Your task to perform on an android device: show emergency info Image 0: 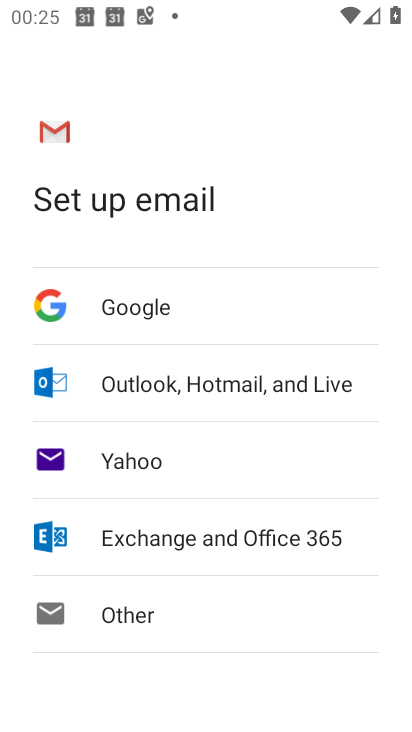
Step 0: press home button
Your task to perform on an android device: show emergency info Image 1: 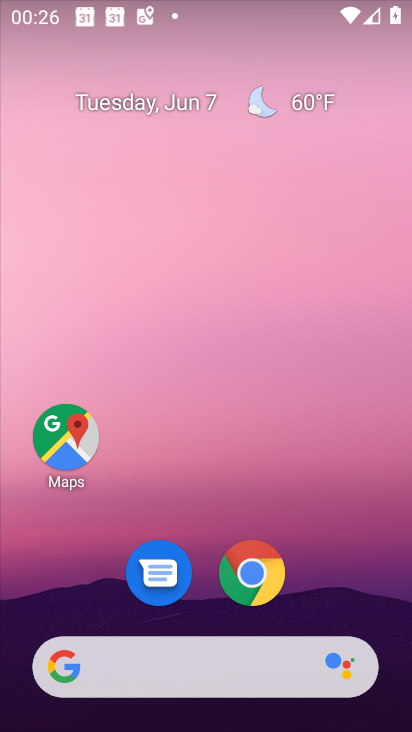
Step 1: drag from (342, 573) to (132, 640)
Your task to perform on an android device: show emergency info Image 2: 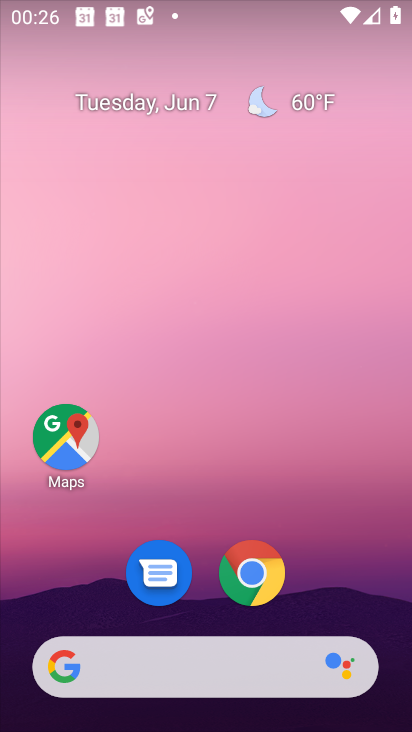
Step 2: drag from (355, 616) to (336, 97)
Your task to perform on an android device: show emergency info Image 3: 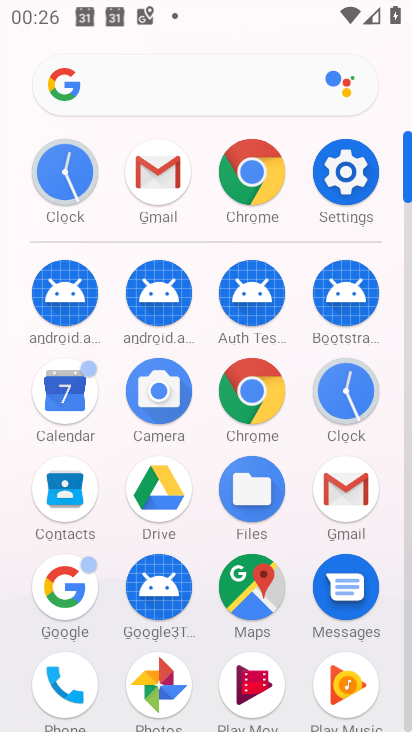
Step 3: click (352, 173)
Your task to perform on an android device: show emergency info Image 4: 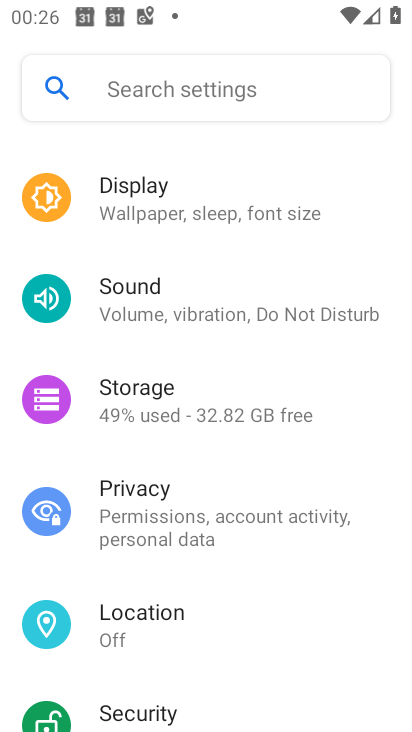
Step 4: drag from (222, 603) to (366, 135)
Your task to perform on an android device: show emergency info Image 5: 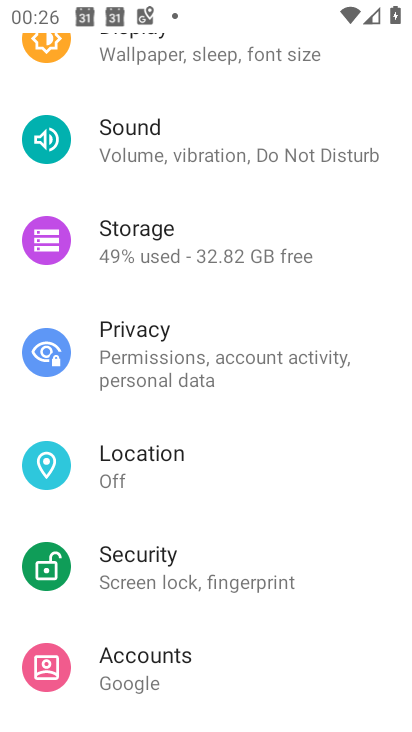
Step 5: click (365, 292)
Your task to perform on an android device: show emergency info Image 6: 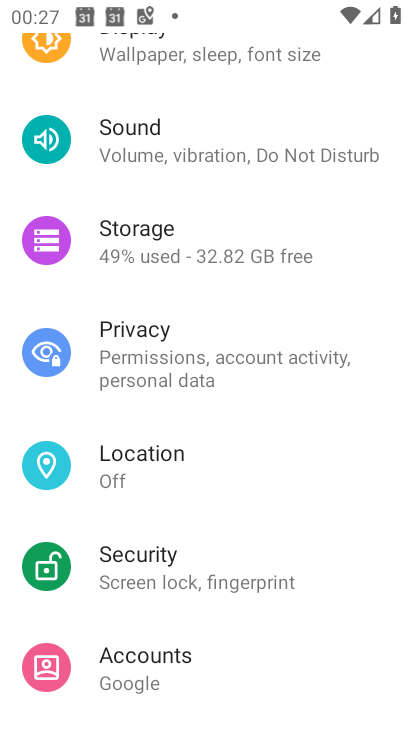
Step 6: drag from (261, 226) to (290, 7)
Your task to perform on an android device: show emergency info Image 7: 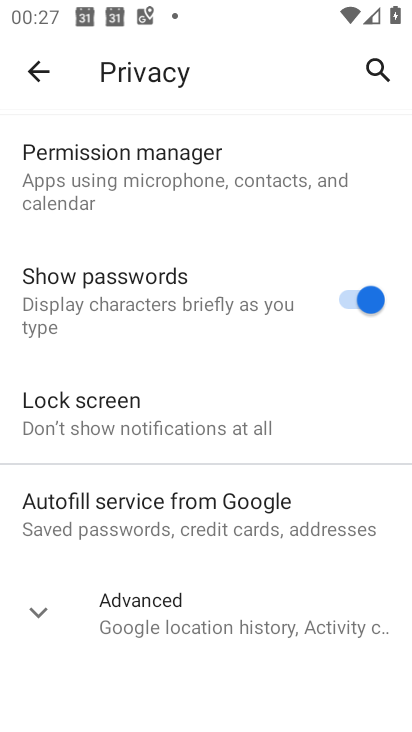
Step 7: click (23, 93)
Your task to perform on an android device: show emergency info Image 8: 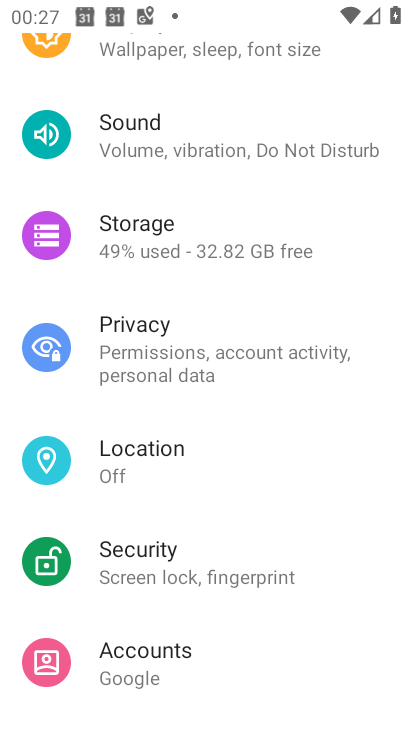
Step 8: drag from (280, 579) to (284, 88)
Your task to perform on an android device: show emergency info Image 9: 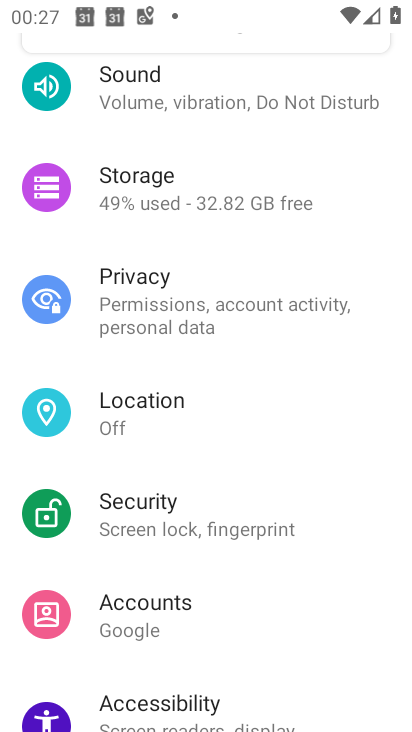
Step 9: drag from (252, 166) to (251, 49)
Your task to perform on an android device: show emergency info Image 10: 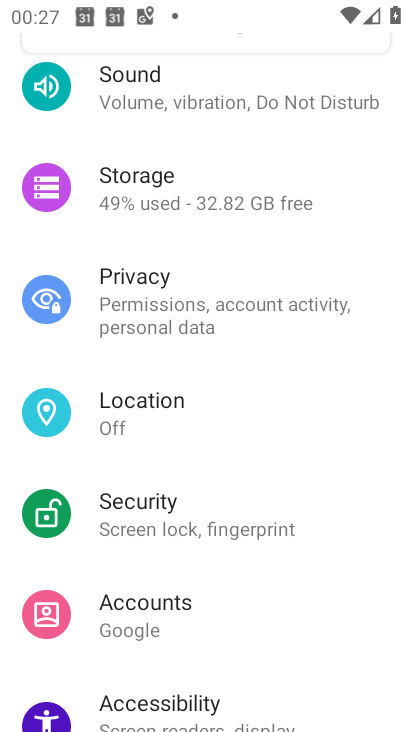
Step 10: drag from (240, 186) to (234, 73)
Your task to perform on an android device: show emergency info Image 11: 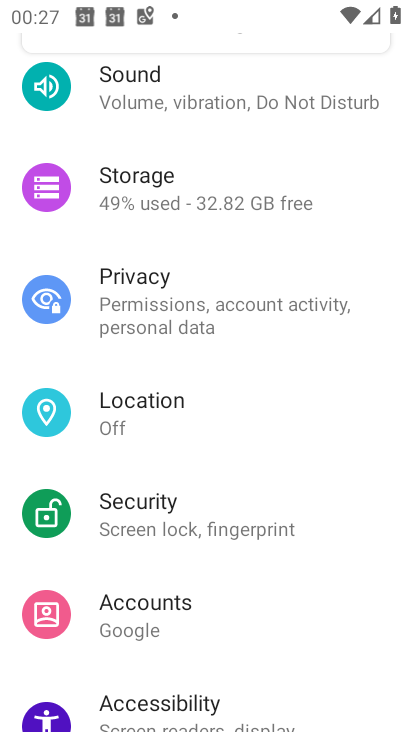
Step 11: drag from (276, 464) to (245, 123)
Your task to perform on an android device: show emergency info Image 12: 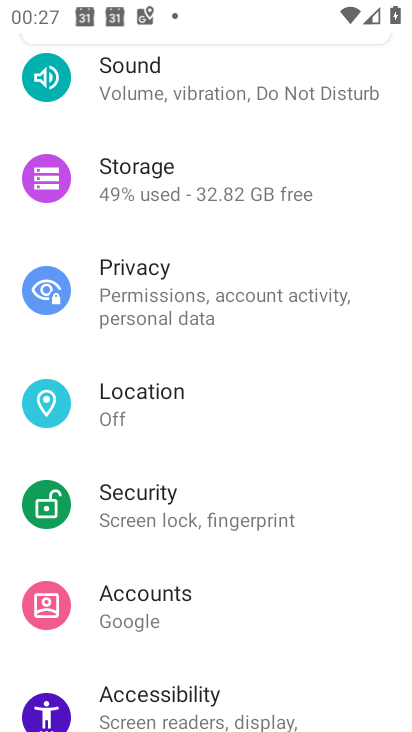
Step 12: drag from (289, 567) to (251, 306)
Your task to perform on an android device: show emergency info Image 13: 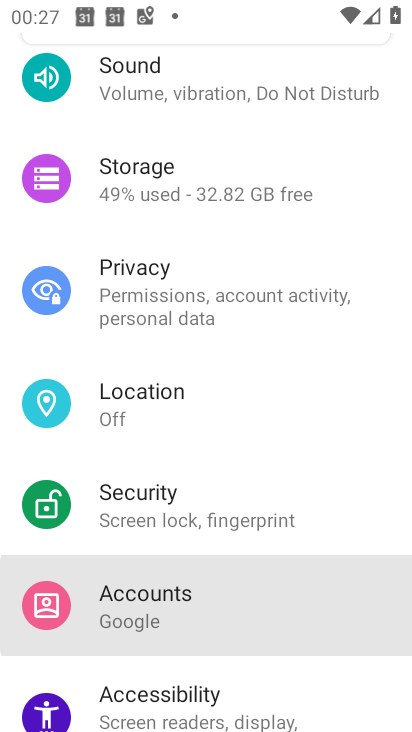
Step 13: drag from (268, 453) to (230, 260)
Your task to perform on an android device: show emergency info Image 14: 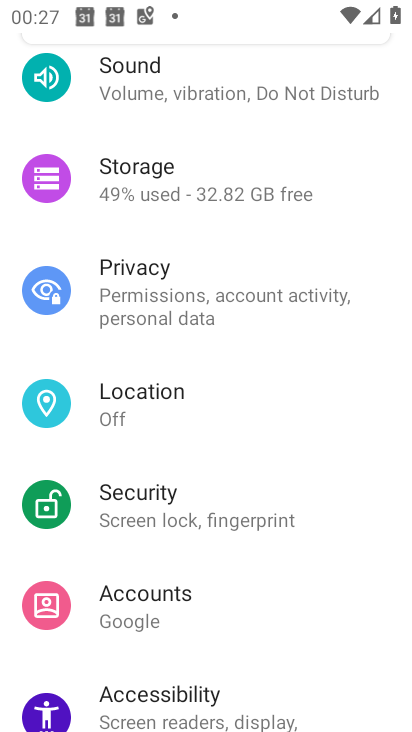
Step 14: drag from (240, 384) to (200, 78)
Your task to perform on an android device: show emergency info Image 15: 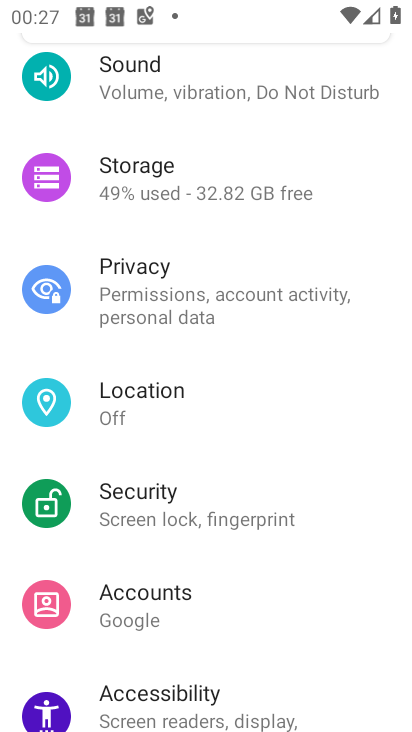
Step 15: drag from (136, 231) to (133, 97)
Your task to perform on an android device: show emergency info Image 16: 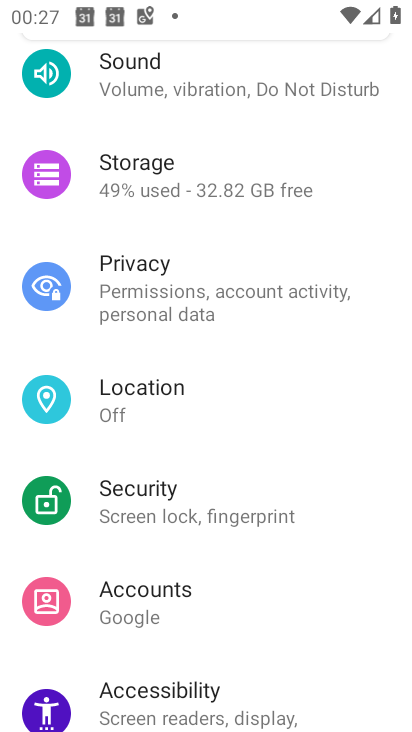
Step 16: click (102, 259)
Your task to perform on an android device: show emergency info Image 17: 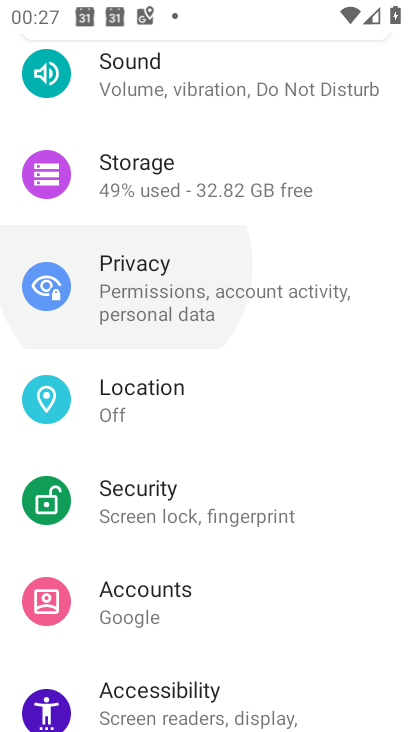
Step 17: drag from (88, 301) to (70, 123)
Your task to perform on an android device: show emergency info Image 18: 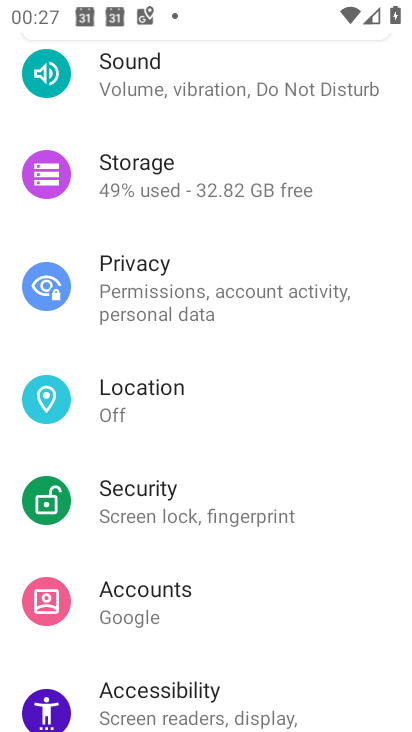
Step 18: drag from (88, 445) to (67, 260)
Your task to perform on an android device: show emergency info Image 19: 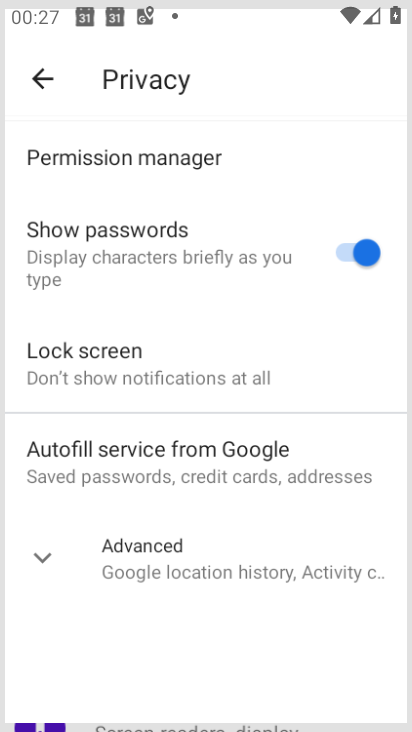
Step 19: drag from (93, 410) to (72, 248)
Your task to perform on an android device: show emergency info Image 20: 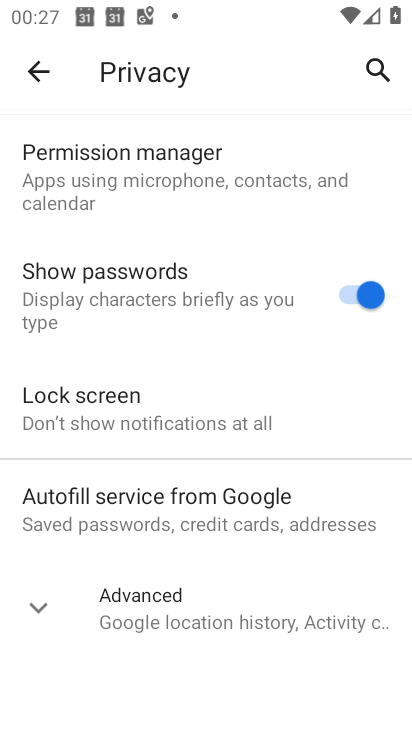
Step 20: drag from (108, 566) to (95, 459)
Your task to perform on an android device: show emergency info Image 21: 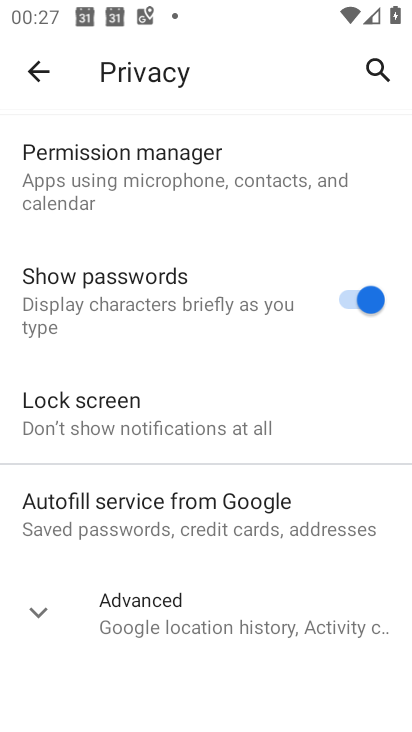
Step 21: click (61, 90)
Your task to perform on an android device: show emergency info Image 22: 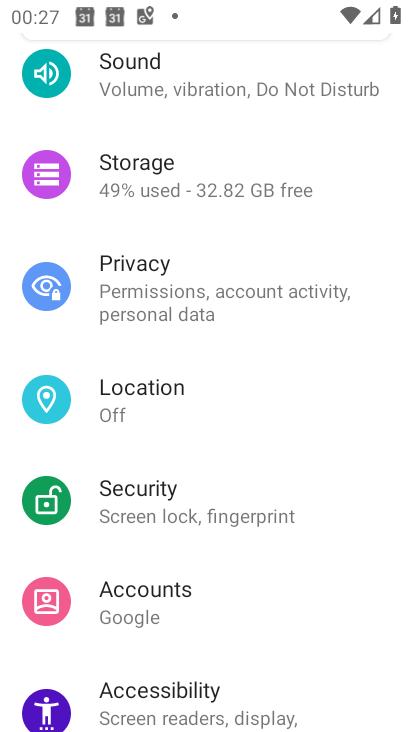
Step 22: drag from (214, 603) to (250, 18)
Your task to perform on an android device: show emergency info Image 23: 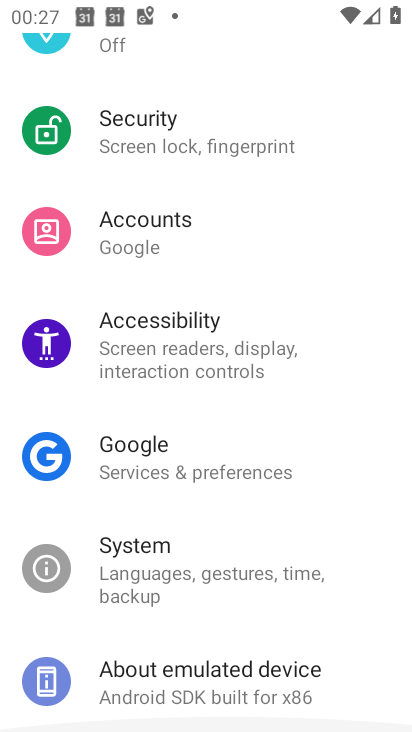
Step 23: drag from (185, 603) to (214, 272)
Your task to perform on an android device: show emergency info Image 24: 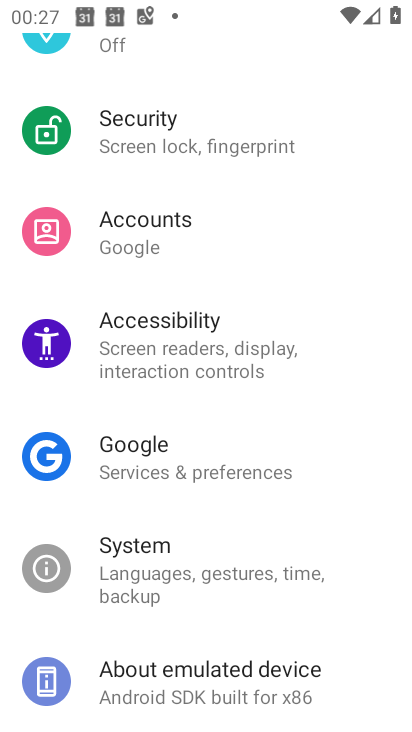
Step 24: click (243, 712)
Your task to perform on an android device: show emergency info Image 25: 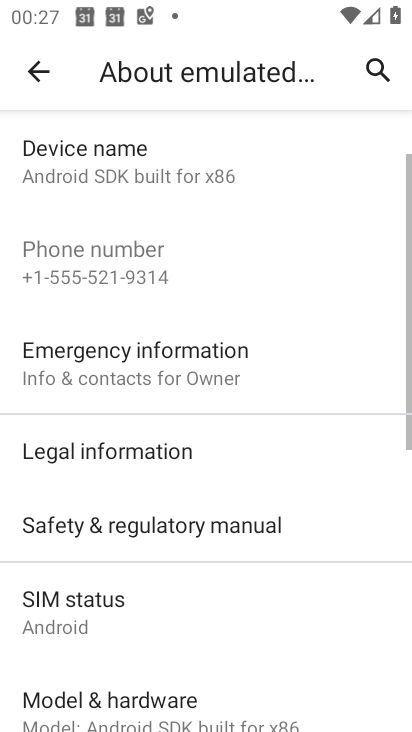
Step 25: click (147, 389)
Your task to perform on an android device: show emergency info Image 26: 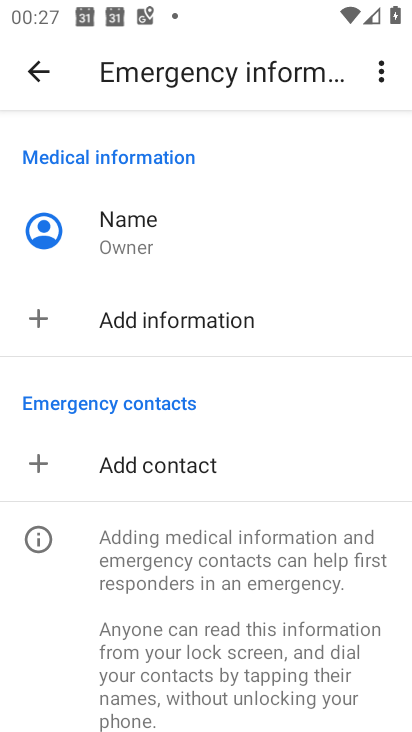
Step 26: task complete